Your task to perform on an android device: empty trash in google photos Image 0: 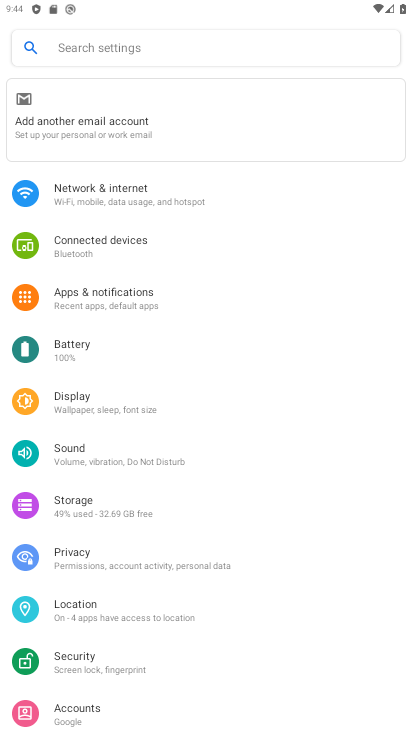
Step 0: press home button
Your task to perform on an android device: empty trash in google photos Image 1: 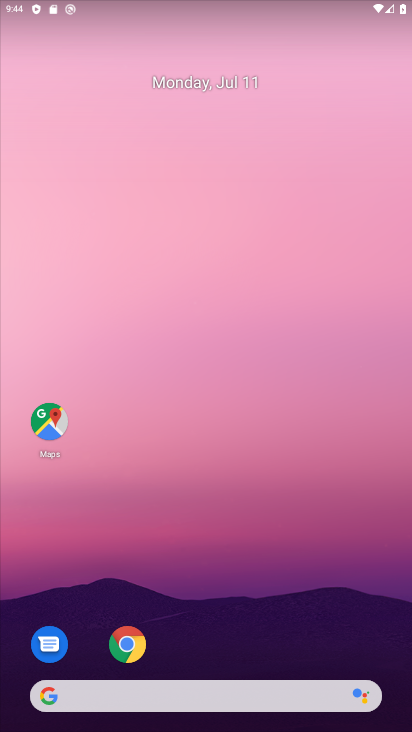
Step 1: drag from (213, 564) to (212, 60)
Your task to perform on an android device: empty trash in google photos Image 2: 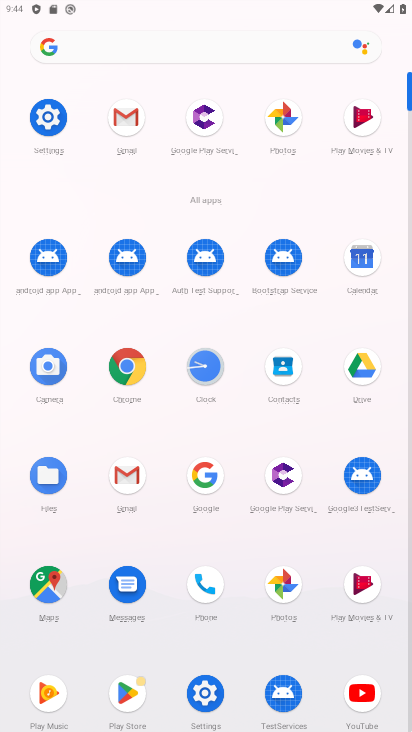
Step 2: click (282, 579)
Your task to perform on an android device: empty trash in google photos Image 3: 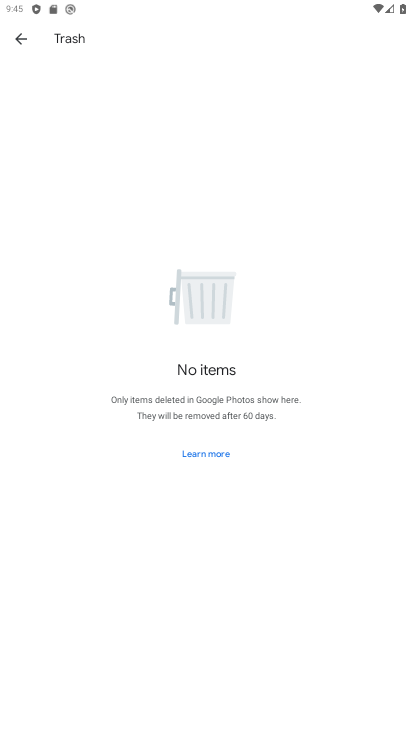
Step 3: task complete